Your task to perform on an android device: Open network settings Image 0: 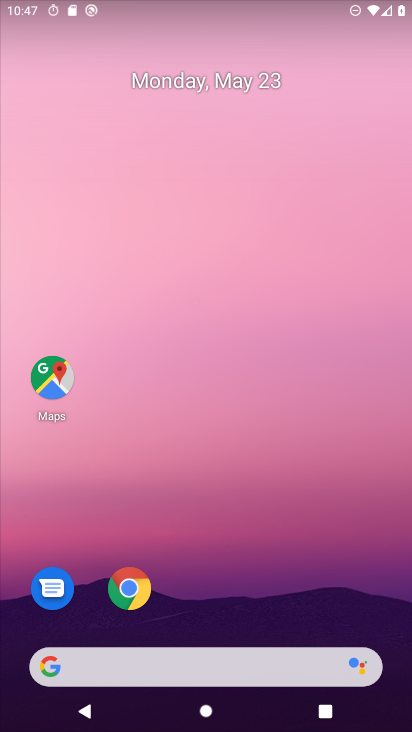
Step 0: drag from (399, 698) to (387, 274)
Your task to perform on an android device: Open network settings Image 1: 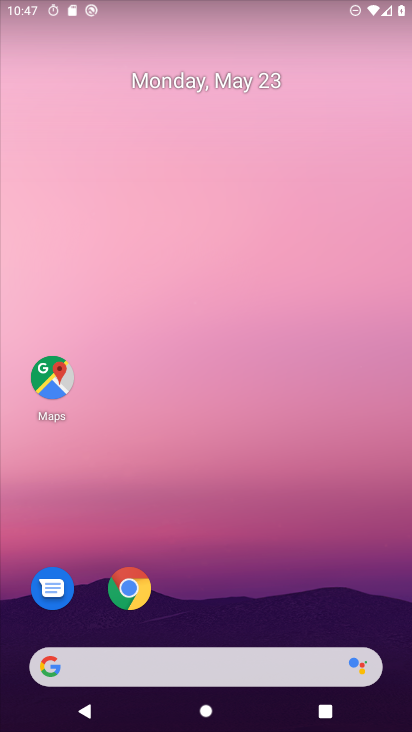
Step 1: drag from (386, 606) to (379, 181)
Your task to perform on an android device: Open network settings Image 2: 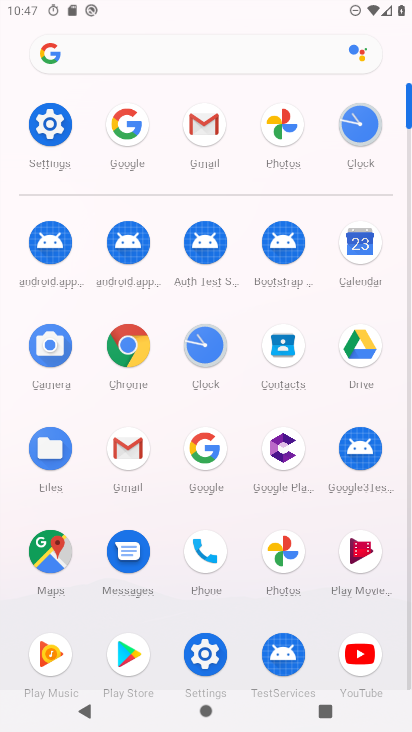
Step 2: click (198, 657)
Your task to perform on an android device: Open network settings Image 3: 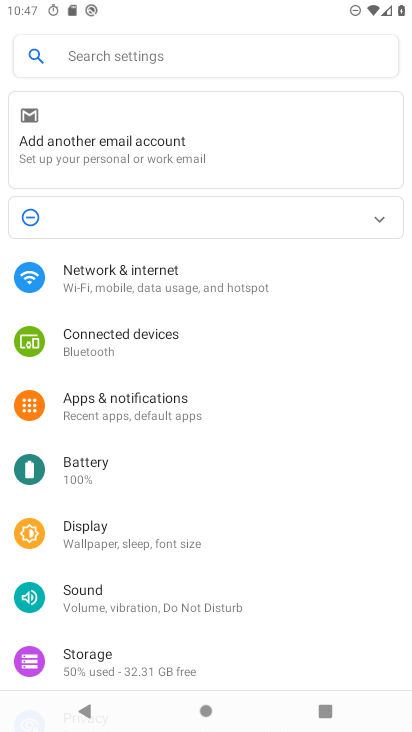
Step 3: click (110, 294)
Your task to perform on an android device: Open network settings Image 4: 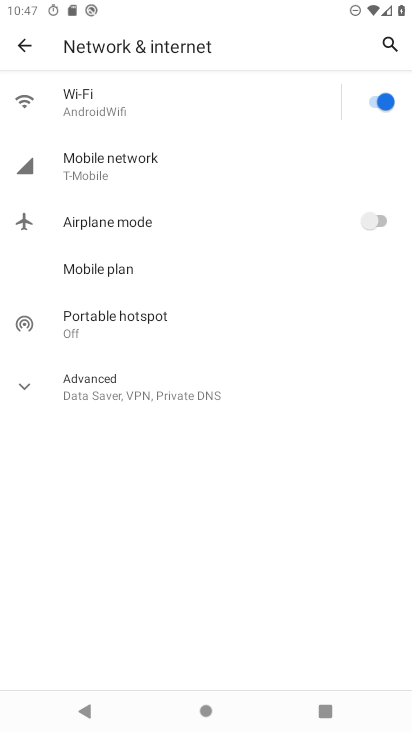
Step 4: click (94, 176)
Your task to perform on an android device: Open network settings Image 5: 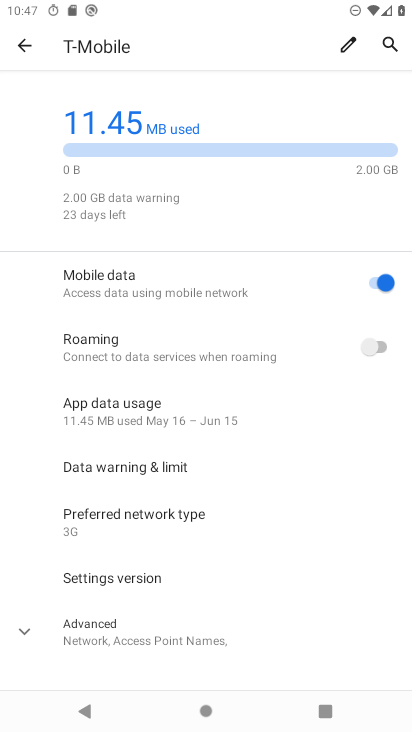
Step 5: task complete